Your task to perform on an android device: turn off airplane mode Image 0: 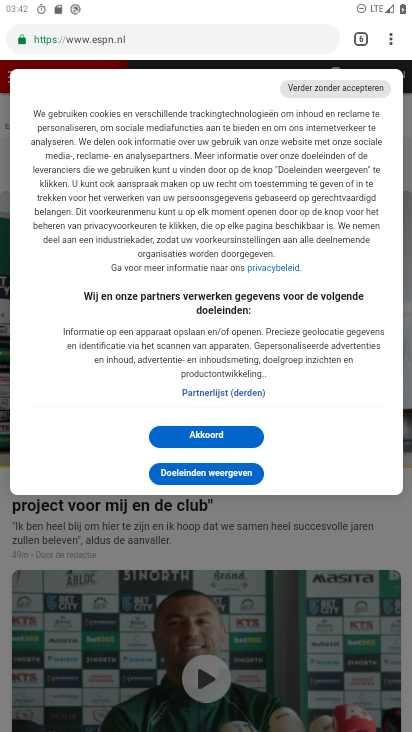
Step 0: press home button
Your task to perform on an android device: turn off airplane mode Image 1: 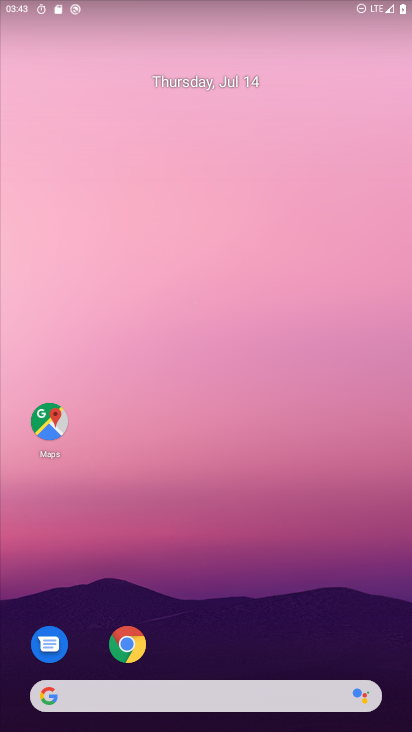
Step 1: drag from (356, 620) to (340, 49)
Your task to perform on an android device: turn off airplane mode Image 2: 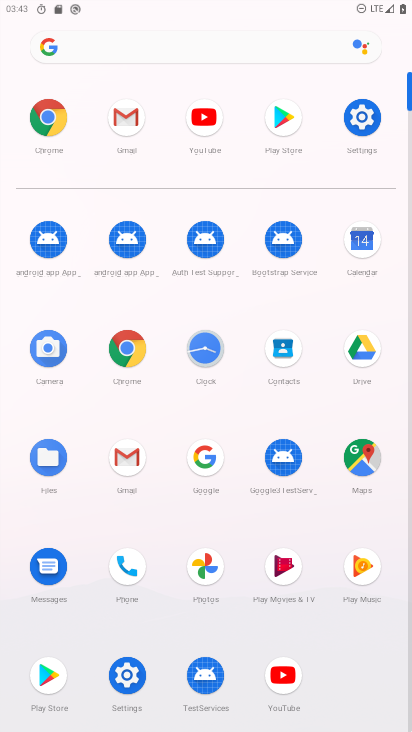
Step 2: click (366, 115)
Your task to perform on an android device: turn off airplane mode Image 3: 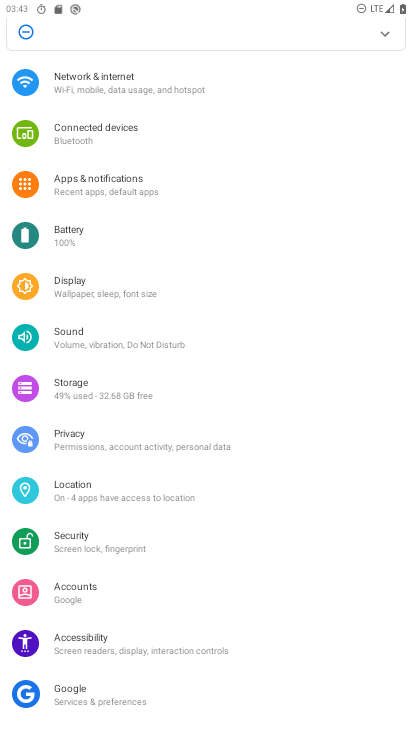
Step 3: click (137, 77)
Your task to perform on an android device: turn off airplane mode Image 4: 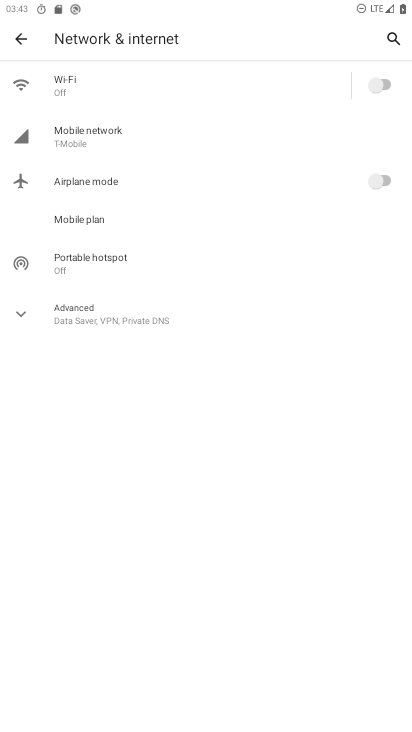
Step 4: task complete